Your task to perform on an android device: turn notification dots off Image 0: 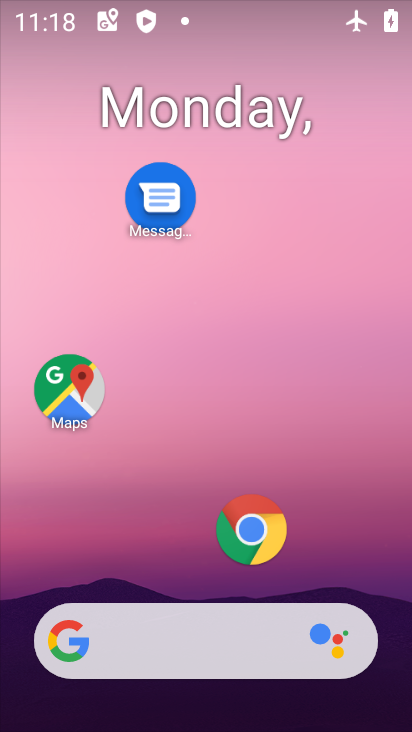
Step 0: drag from (129, 559) to (264, 161)
Your task to perform on an android device: turn notification dots off Image 1: 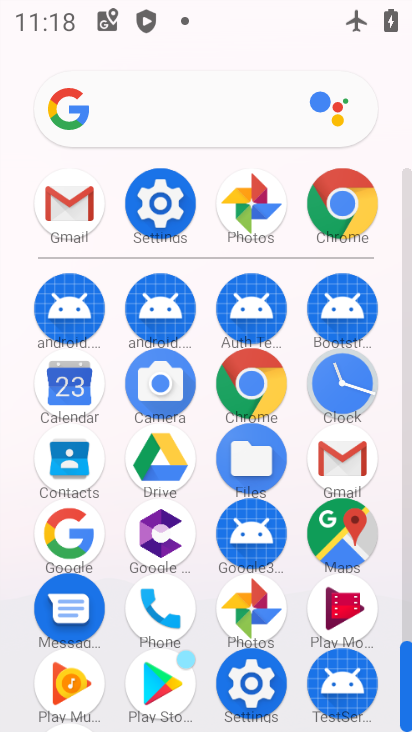
Step 1: click (252, 686)
Your task to perform on an android device: turn notification dots off Image 2: 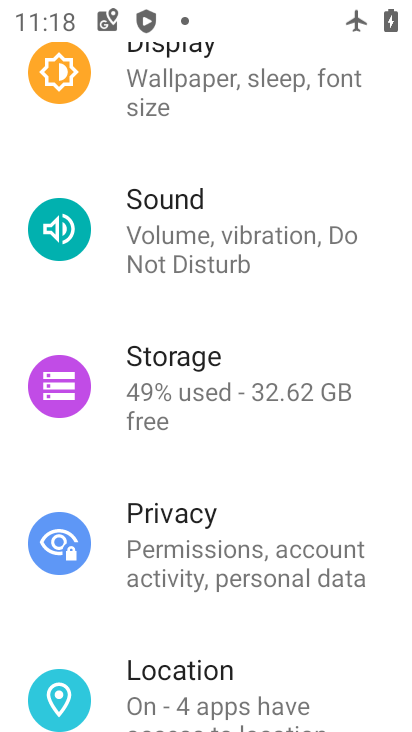
Step 2: drag from (201, 618) to (228, 292)
Your task to perform on an android device: turn notification dots off Image 3: 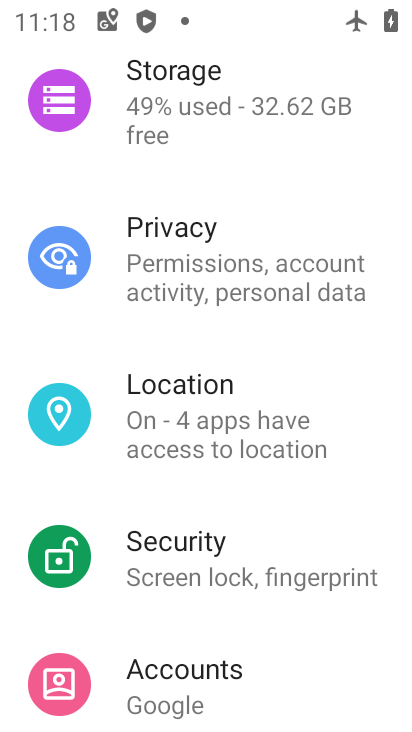
Step 3: drag from (244, 196) to (207, 692)
Your task to perform on an android device: turn notification dots off Image 4: 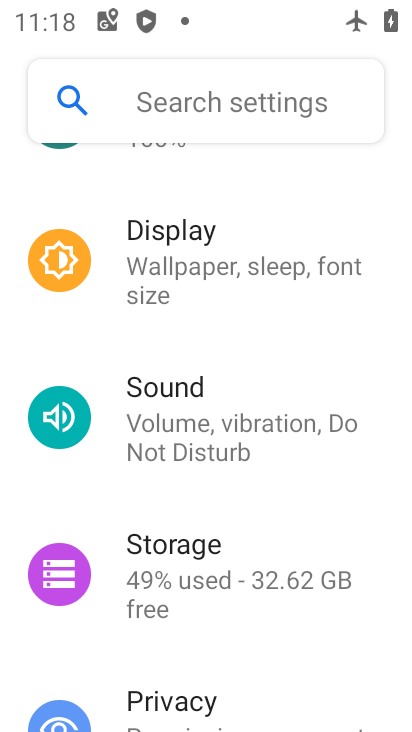
Step 4: drag from (251, 197) to (262, 628)
Your task to perform on an android device: turn notification dots off Image 5: 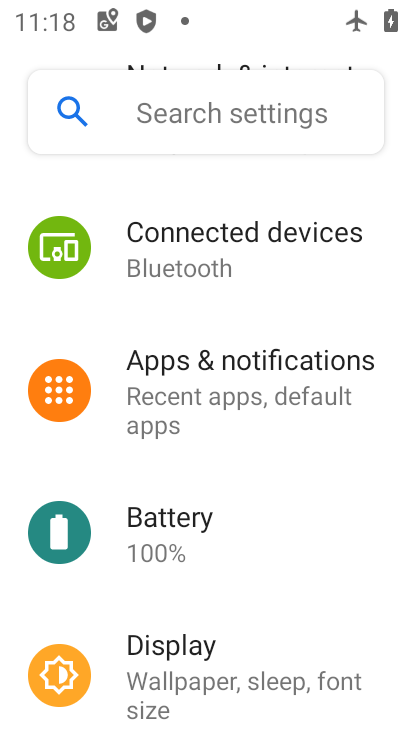
Step 5: click (251, 416)
Your task to perform on an android device: turn notification dots off Image 6: 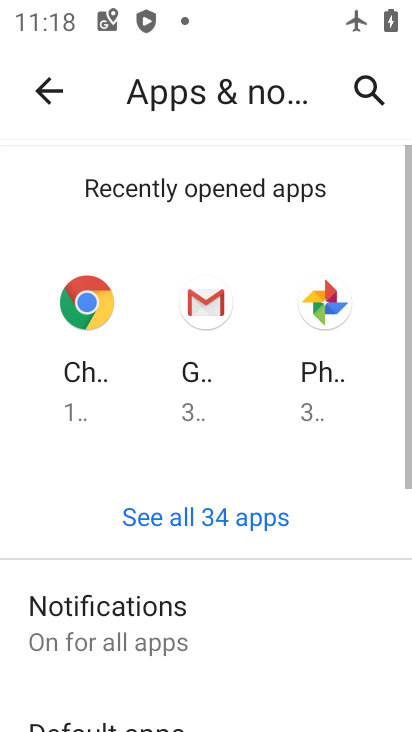
Step 6: drag from (221, 646) to (241, 306)
Your task to perform on an android device: turn notification dots off Image 7: 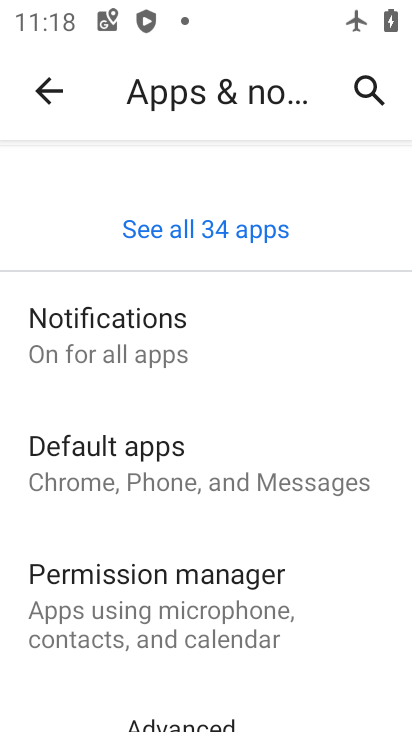
Step 7: drag from (213, 605) to (243, 295)
Your task to perform on an android device: turn notification dots off Image 8: 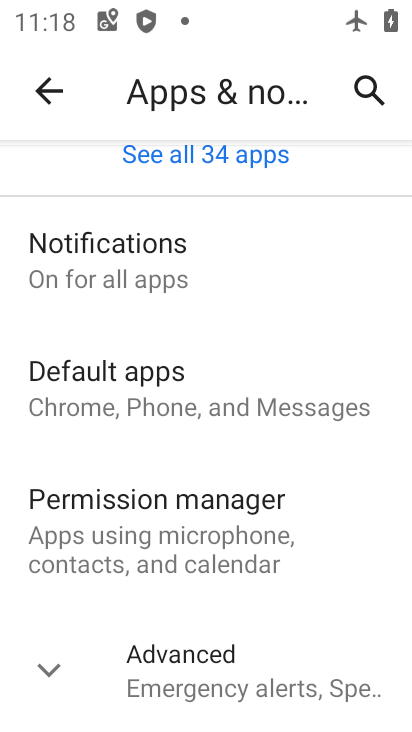
Step 8: click (207, 689)
Your task to perform on an android device: turn notification dots off Image 9: 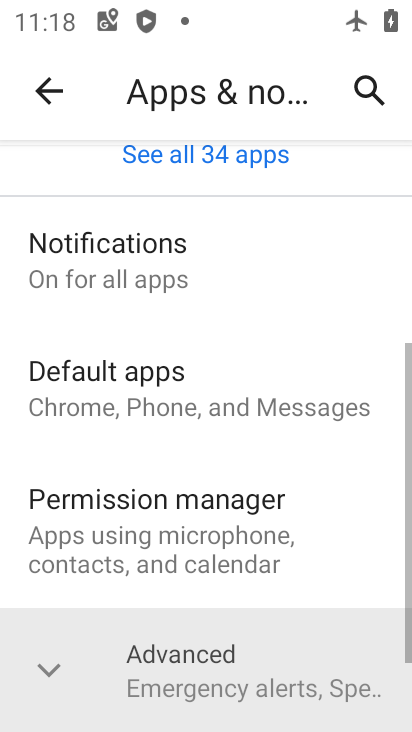
Step 9: drag from (218, 623) to (249, 199)
Your task to perform on an android device: turn notification dots off Image 10: 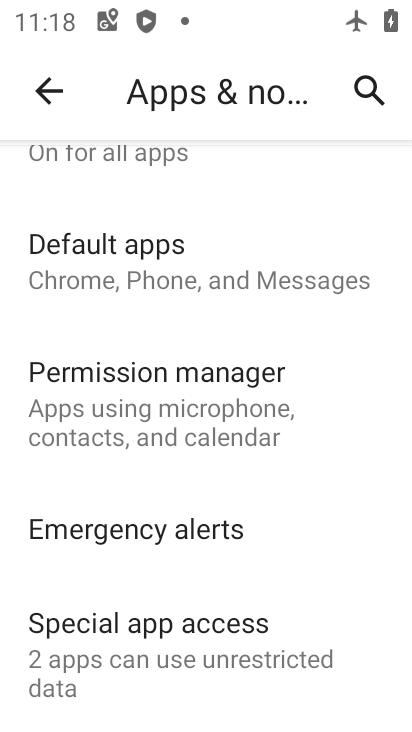
Step 10: drag from (220, 311) to (221, 722)
Your task to perform on an android device: turn notification dots off Image 11: 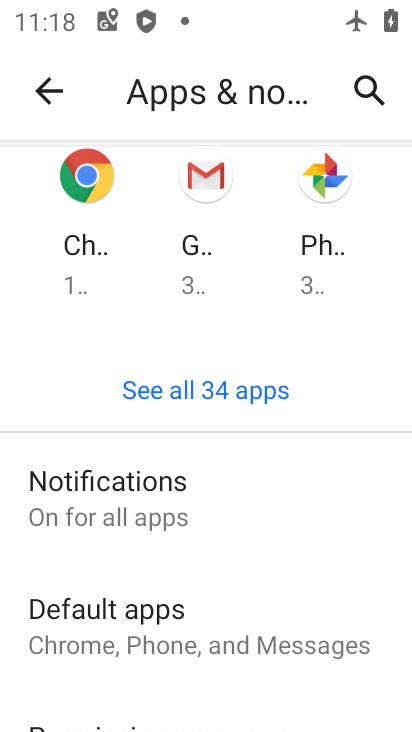
Step 11: click (152, 511)
Your task to perform on an android device: turn notification dots off Image 12: 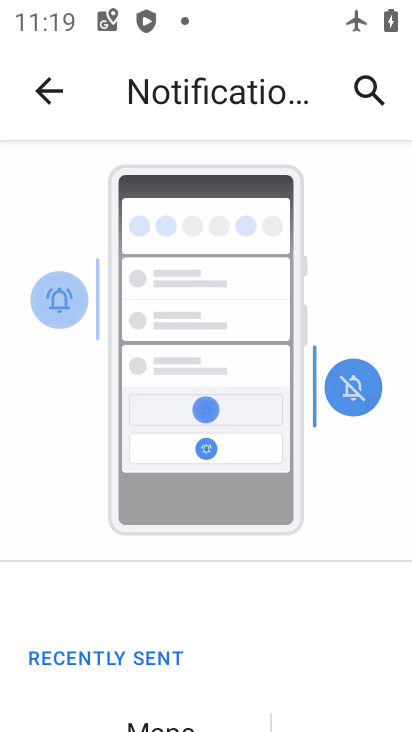
Step 12: drag from (205, 637) to (265, 202)
Your task to perform on an android device: turn notification dots off Image 13: 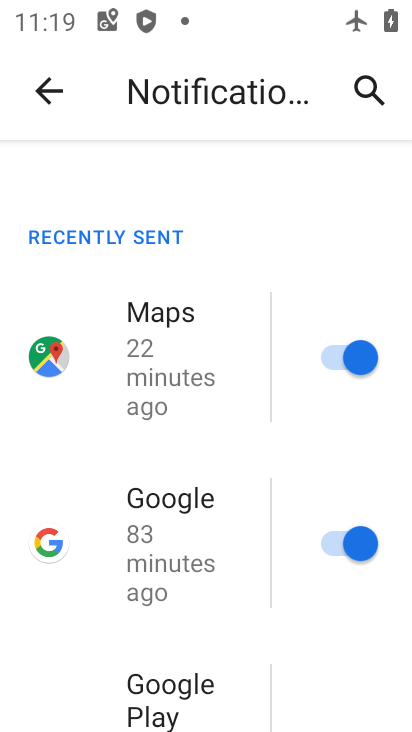
Step 13: drag from (242, 565) to (295, 122)
Your task to perform on an android device: turn notification dots off Image 14: 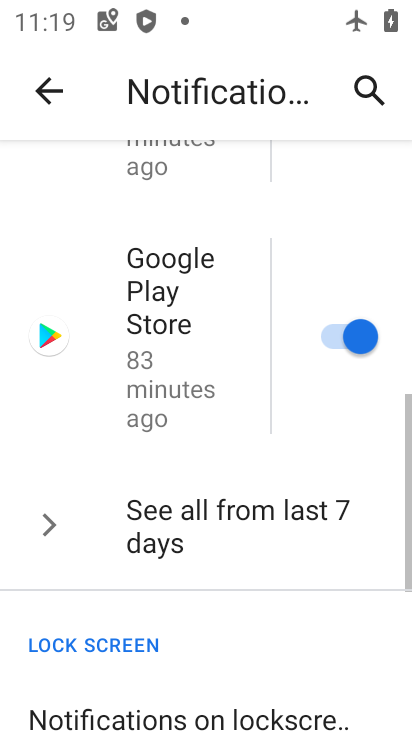
Step 14: drag from (190, 596) to (254, 156)
Your task to perform on an android device: turn notification dots off Image 15: 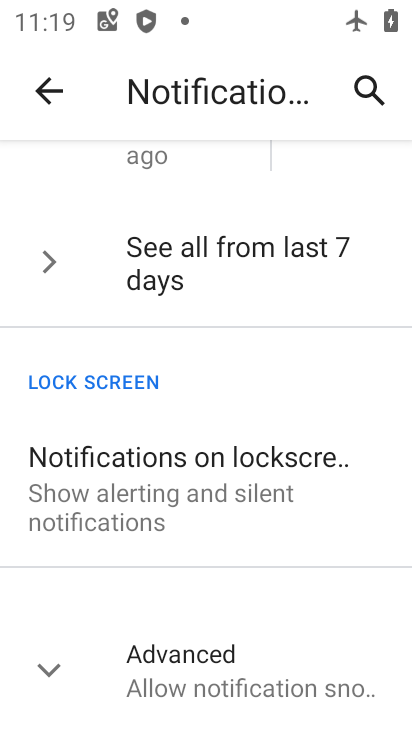
Step 15: click (215, 675)
Your task to perform on an android device: turn notification dots off Image 16: 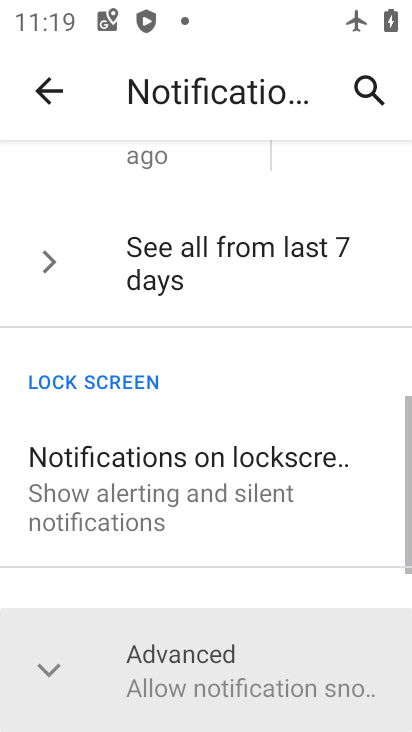
Step 16: drag from (213, 634) to (253, 203)
Your task to perform on an android device: turn notification dots off Image 17: 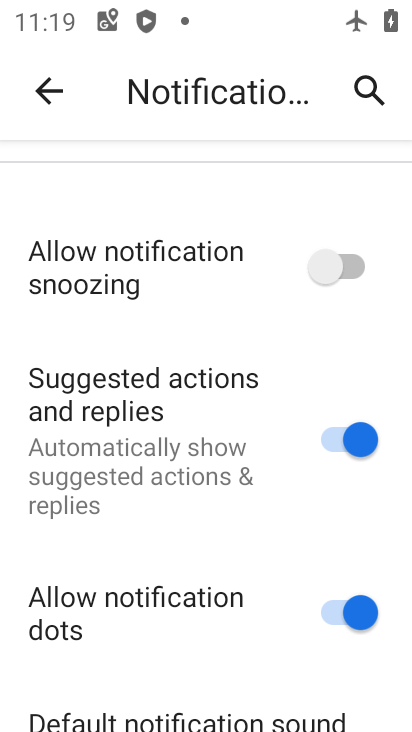
Step 17: drag from (227, 563) to (214, 407)
Your task to perform on an android device: turn notification dots off Image 18: 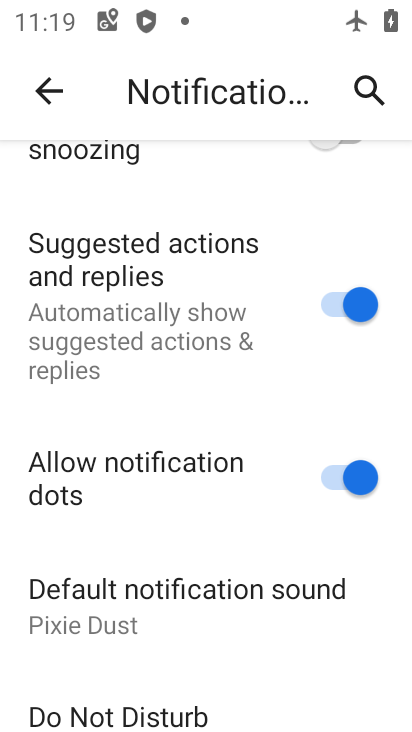
Step 18: click (334, 475)
Your task to perform on an android device: turn notification dots off Image 19: 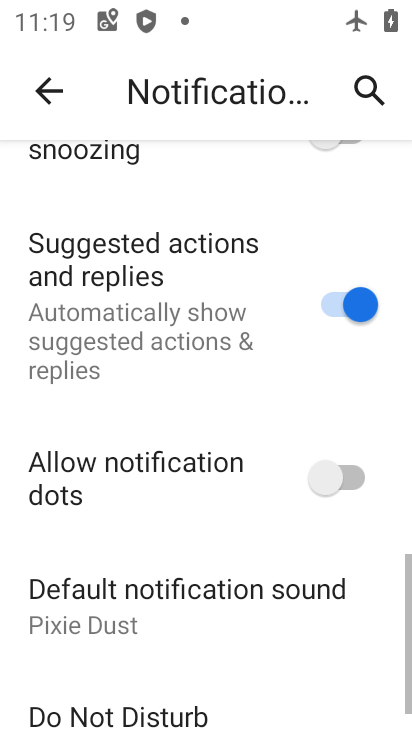
Step 19: task complete